Your task to perform on an android device: visit the assistant section in the google photos Image 0: 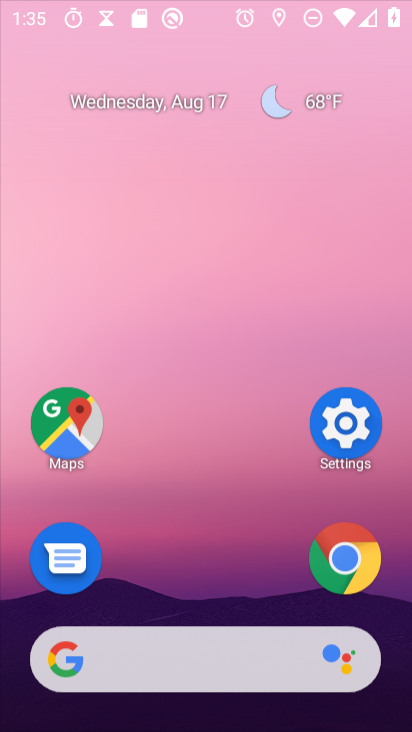
Step 0: press home button
Your task to perform on an android device: visit the assistant section in the google photos Image 1: 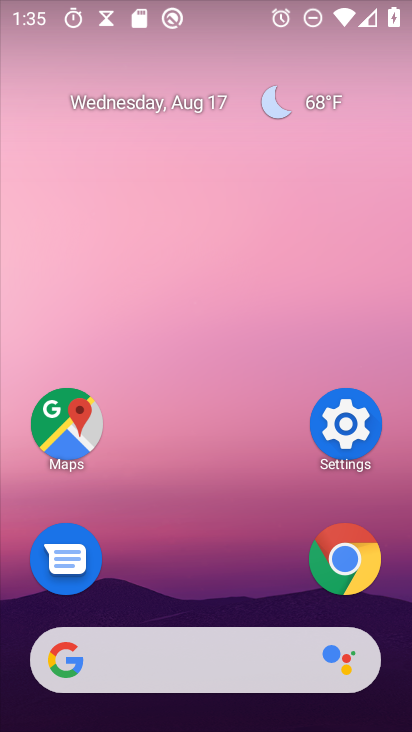
Step 1: drag from (183, 629) to (288, 133)
Your task to perform on an android device: visit the assistant section in the google photos Image 2: 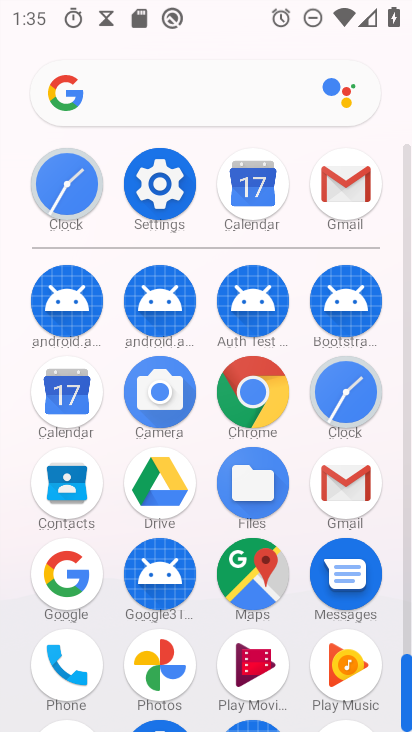
Step 2: drag from (195, 585) to (344, 145)
Your task to perform on an android device: visit the assistant section in the google photos Image 3: 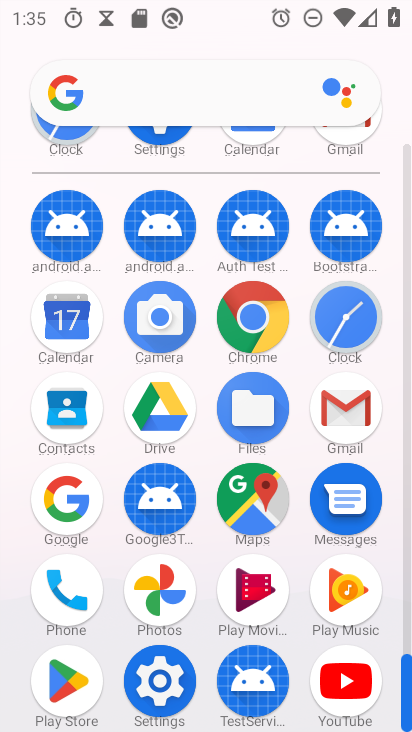
Step 3: click (157, 583)
Your task to perform on an android device: visit the assistant section in the google photos Image 4: 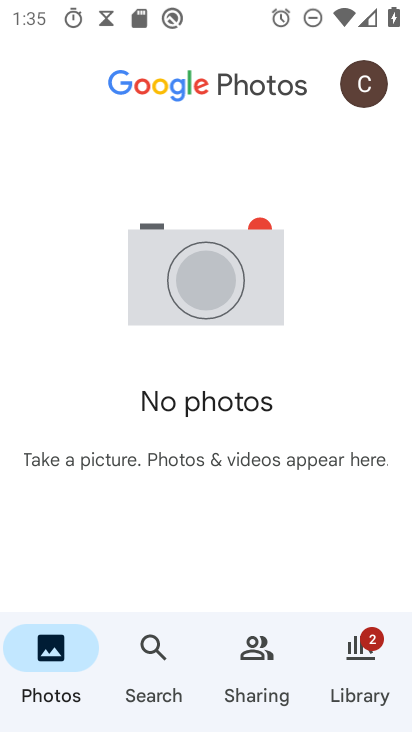
Step 4: click (367, 681)
Your task to perform on an android device: visit the assistant section in the google photos Image 5: 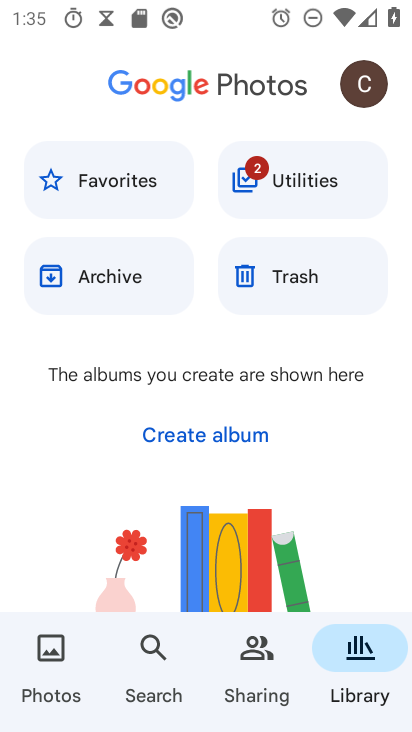
Step 5: task complete